Your task to perform on an android device: What's the weather going to be this weekend? Image 0: 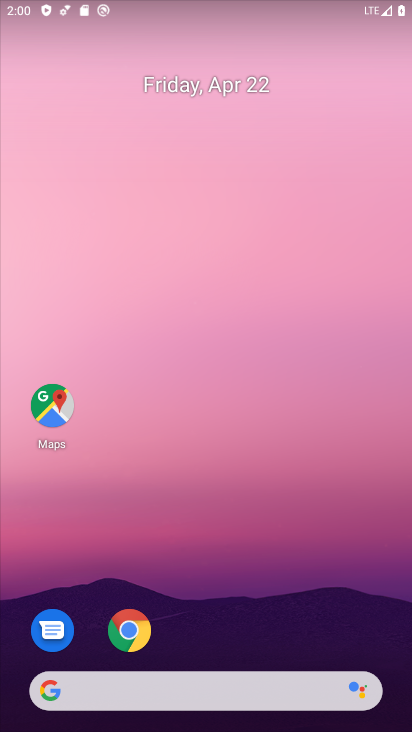
Step 0: drag from (327, 478) to (323, 190)
Your task to perform on an android device: What's the weather going to be this weekend? Image 1: 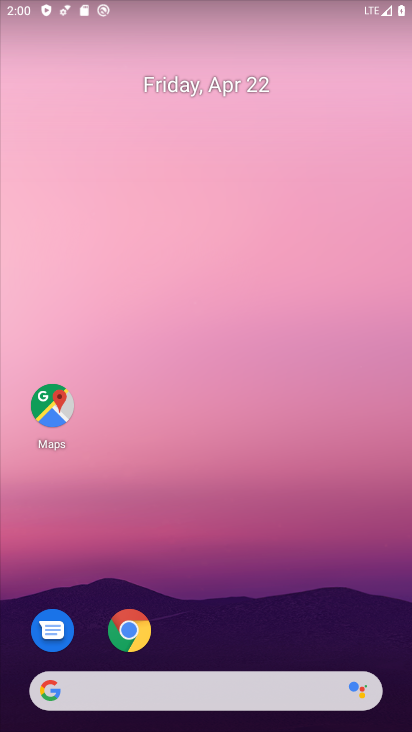
Step 1: drag from (341, 623) to (285, 173)
Your task to perform on an android device: What's the weather going to be this weekend? Image 2: 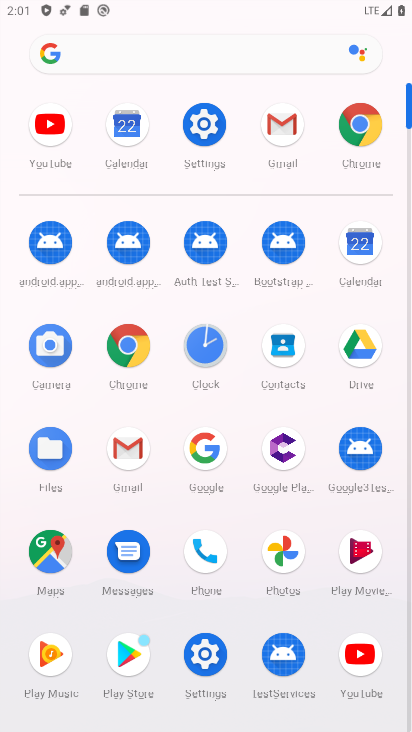
Step 2: drag from (173, 496) to (166, 283)
Your task to perform on an android device: What's the weather going to be this weekend? Image 3: 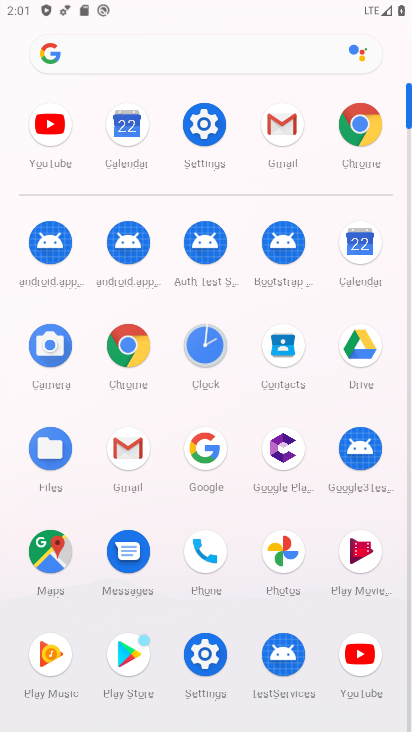
Step 3: click (122, 356)
Your task to perform on an android device: What's the weather going to be this weekend? Image 4: 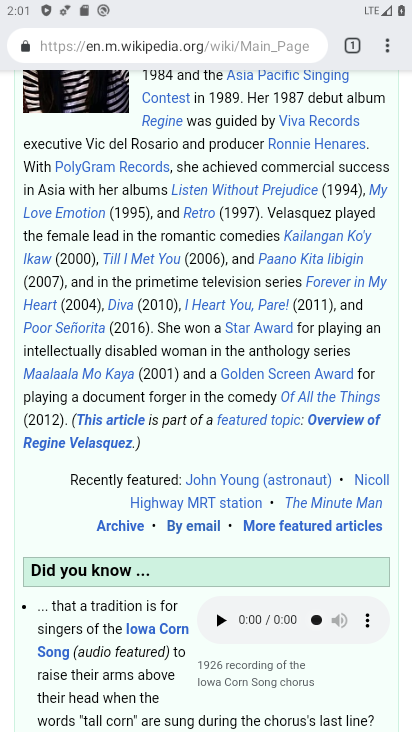
Step 4: click (210, 45)
Your task to perform on an android device: What's the weather going to be this weekend? Image 5: 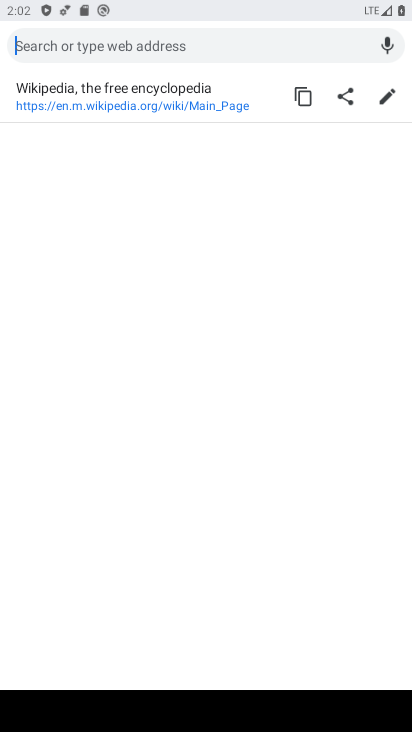
Step 5: type "what's the weather going to be this weekend"
Your task to perform on an android device: What's the weather going to be this weekend? Image 6: 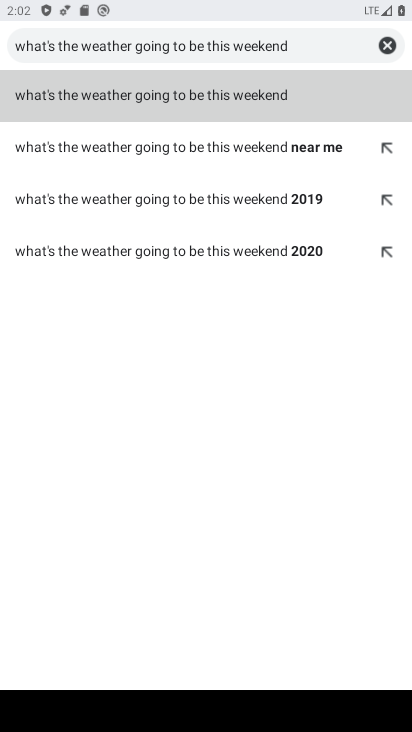
Step 6: click (203, 94)
Your task to perform on an android device: What's the weather going to be this weekend? Image 7: 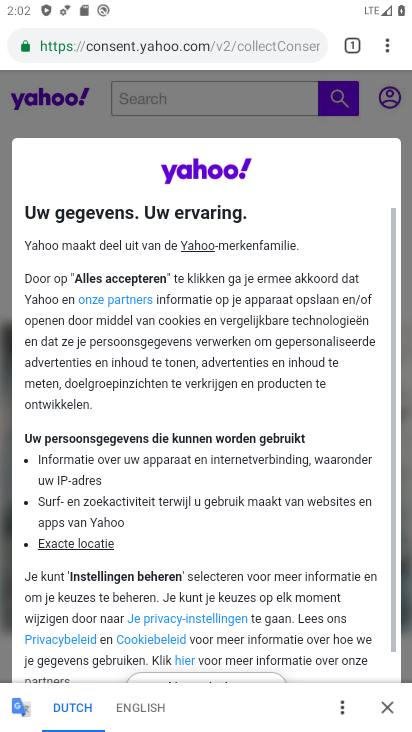
Step 7: drag from (210, 577) to (206, 285)
Your task to perform on an android device: What's the weather going to be this weekend? Image 8: 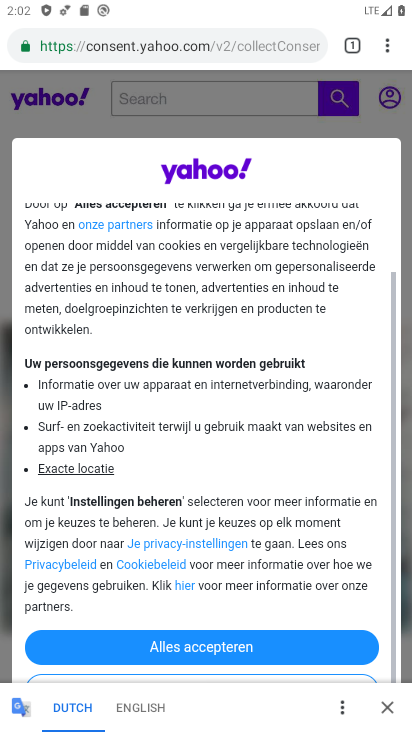
Step 8: click (178, 653)
Your task to perform on an android device: What's the weather going to be this weekend? Image 9: 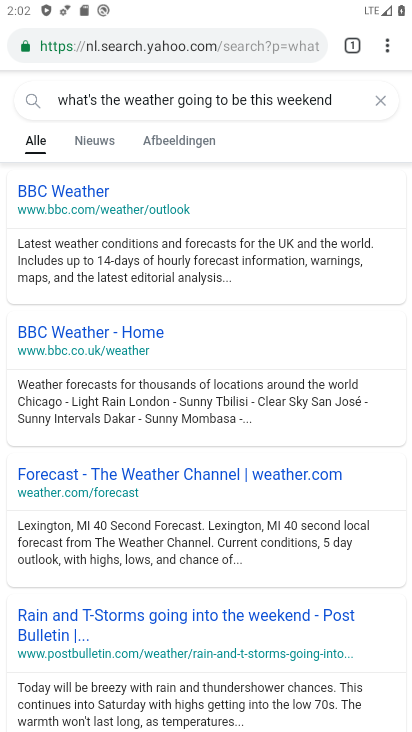
Step 9: click (33, 192)
Your task to perform on an android device: What's the weather going to be this weekend? Image 10: 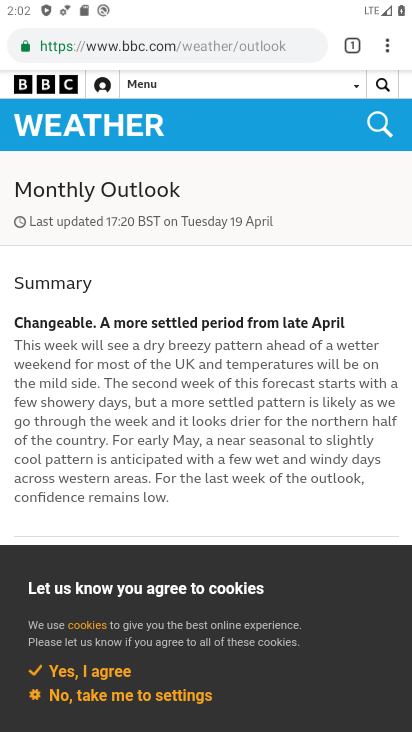
Step 10: task complete